Your task to perform on an android device: Open eBay Image 0: 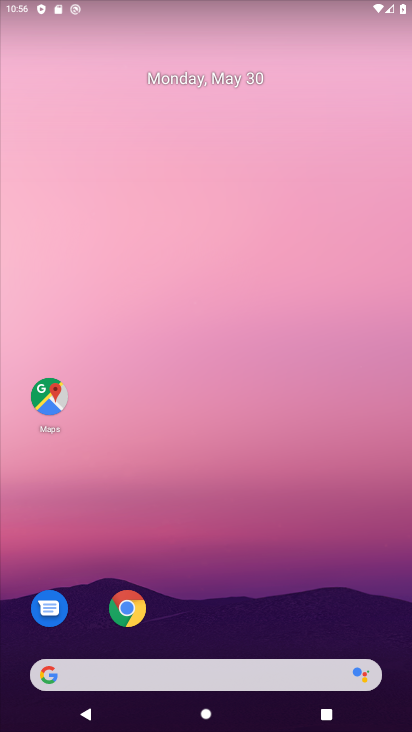
Step 0: click (125, 609)
Your task to perform on an android device: Open eBay Image 1: 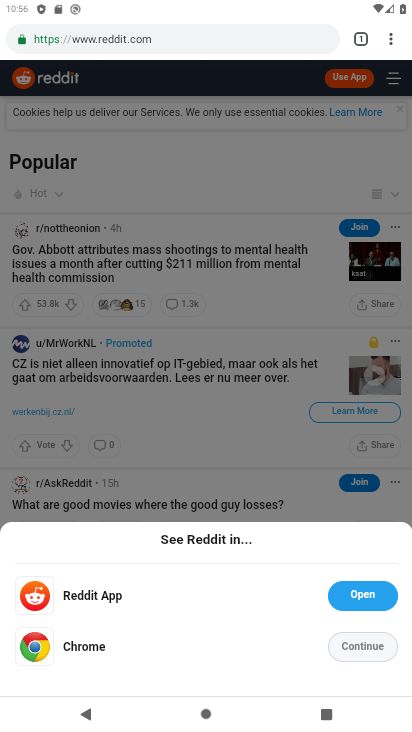
Step 1: click (122, 38)
Your task to perform on an android device: Open eBay Image 2: 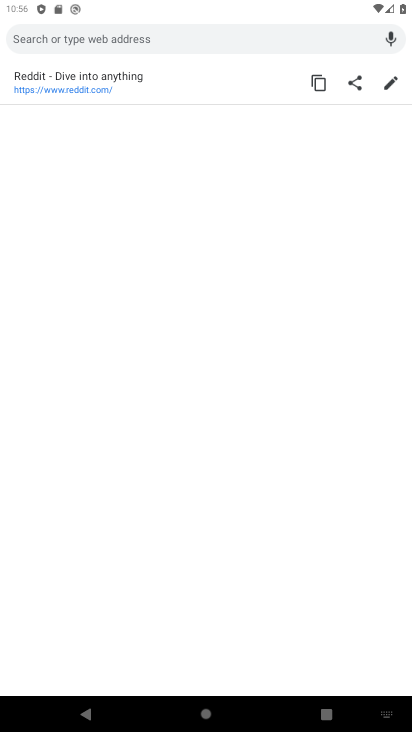
Step 2: type "ebay"
Your task to perform on an android device: Open eBay Image 3: 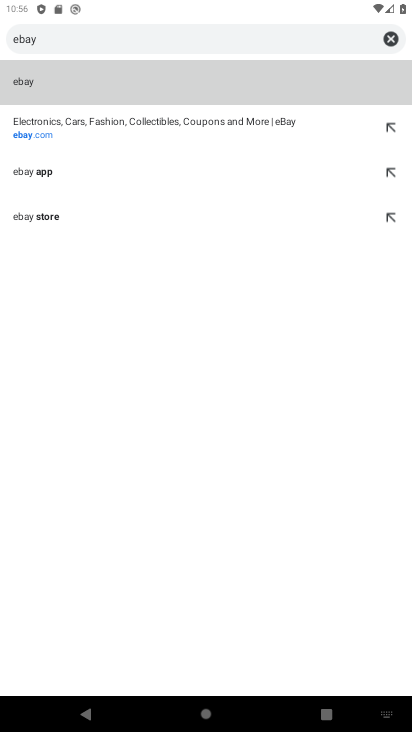
Step 3: click (20, 138)
Your task to perform on an android device: Open eBay Image 4: 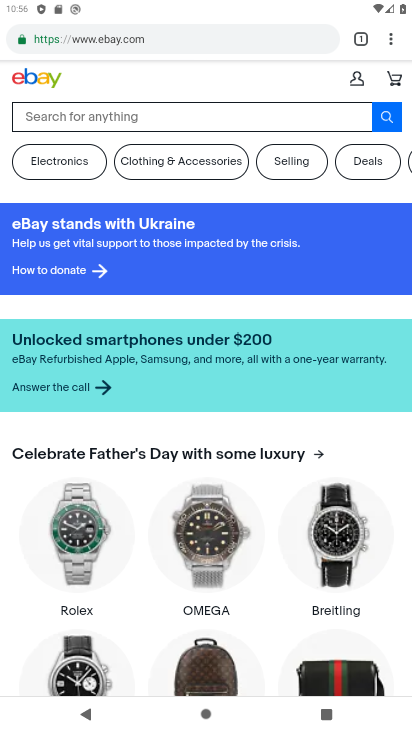
Step 4: task complete